Your task to perform on an android device: uninstall "WhatsApp Messenger" Image 0: 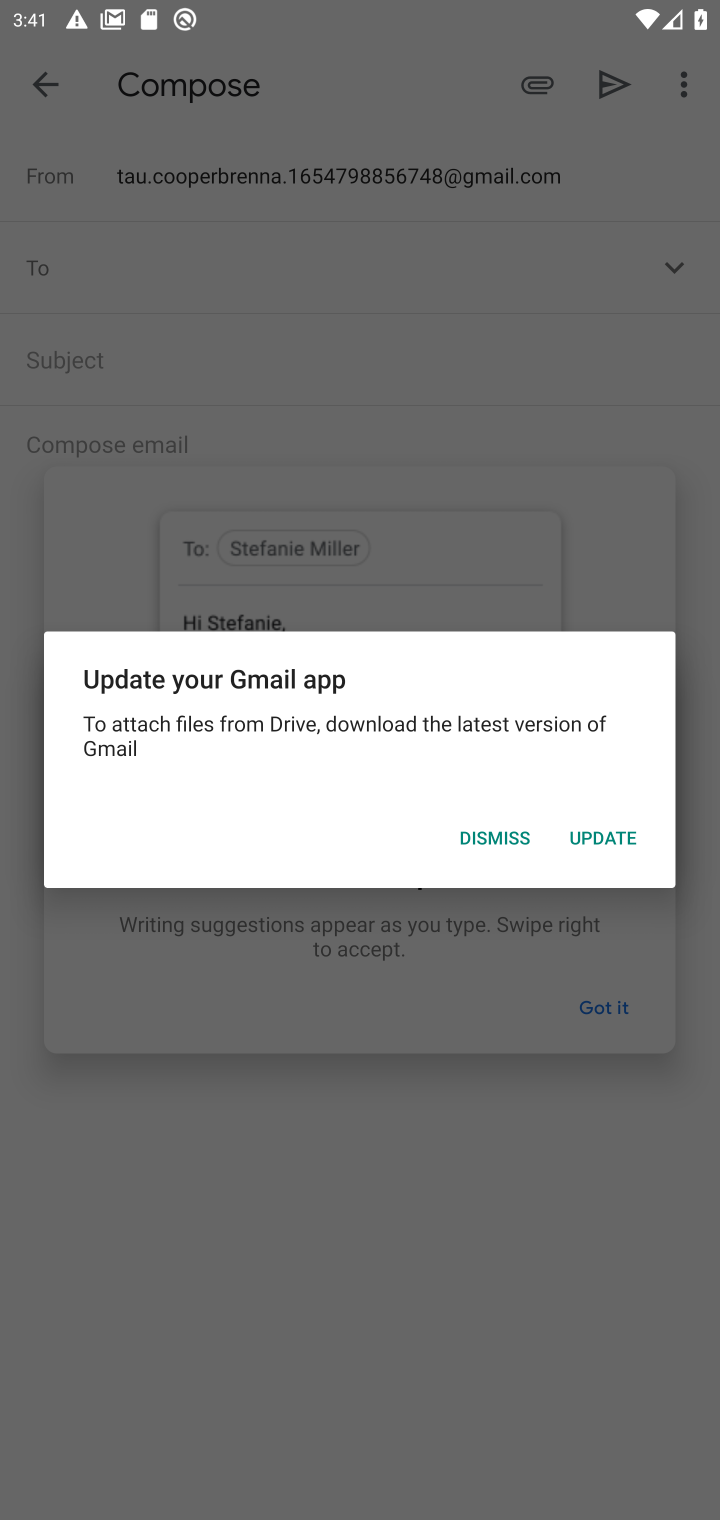
Step 0: press home button
Your task to perform on an android device: uninstall "WhatsApp Messenger" Image 1: 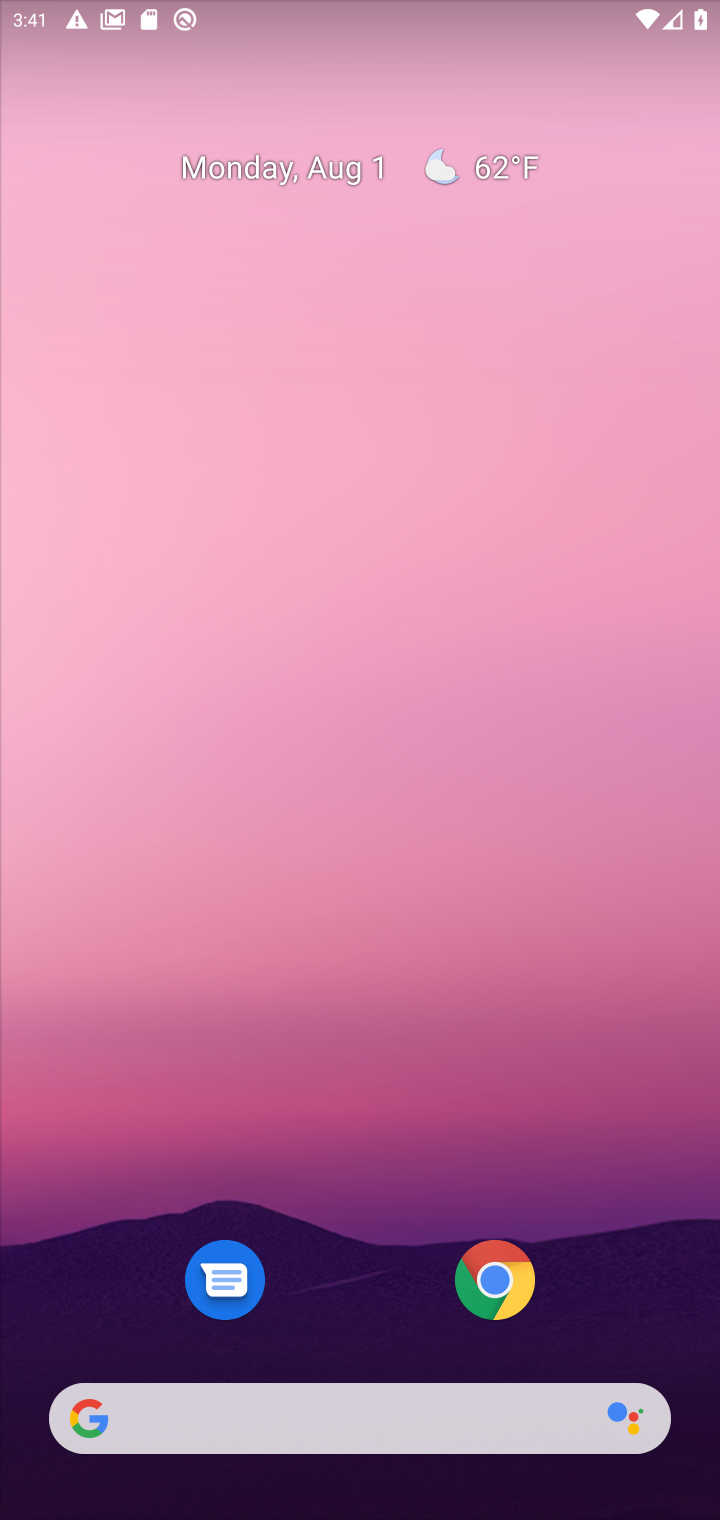
Step 1: drag from (310, 1274) to (395, 6)
Your task to perform on an android device: uninstall "WhatsApp Messenger" Image 2: 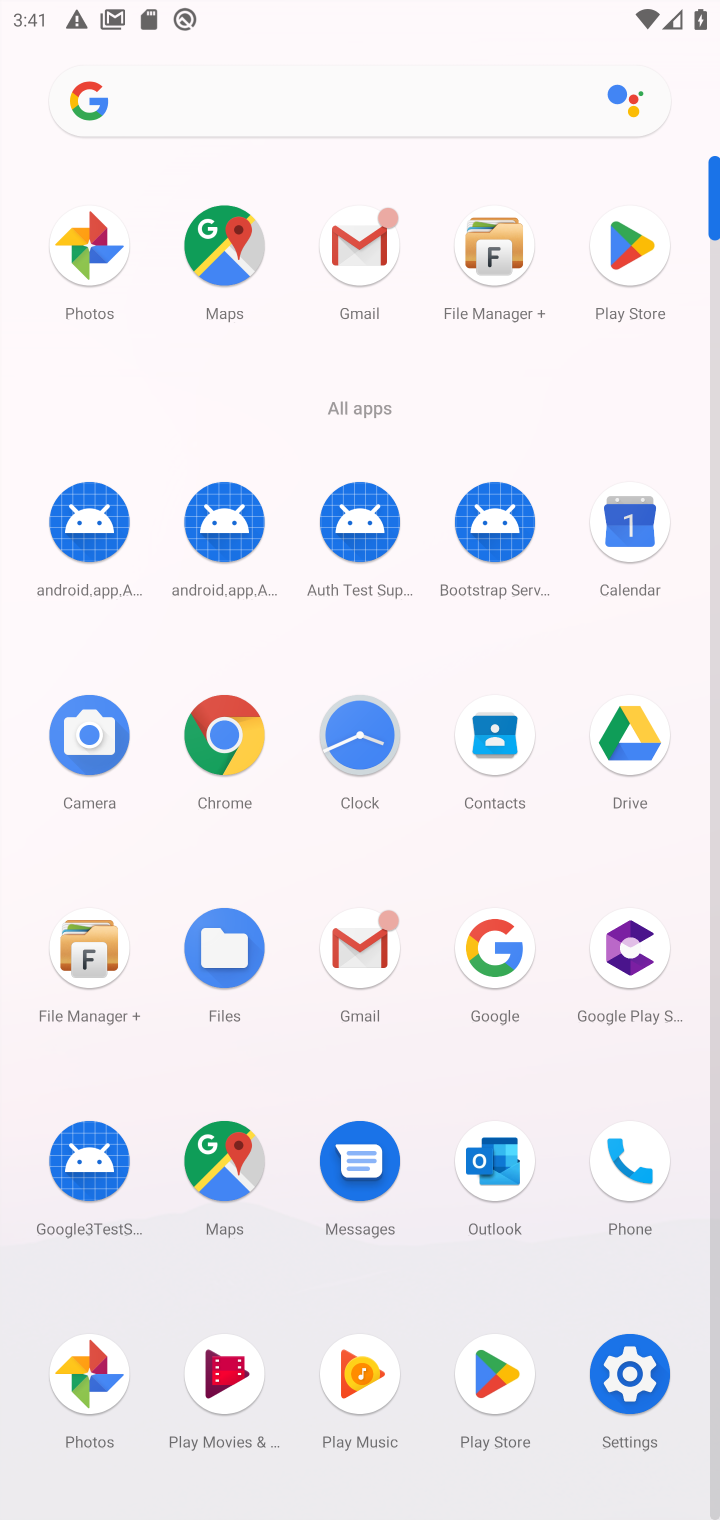
Step 2: click (624, 245)
Your task to perform on an android device: uninstall "WhatsApp Messenger" Image 3: 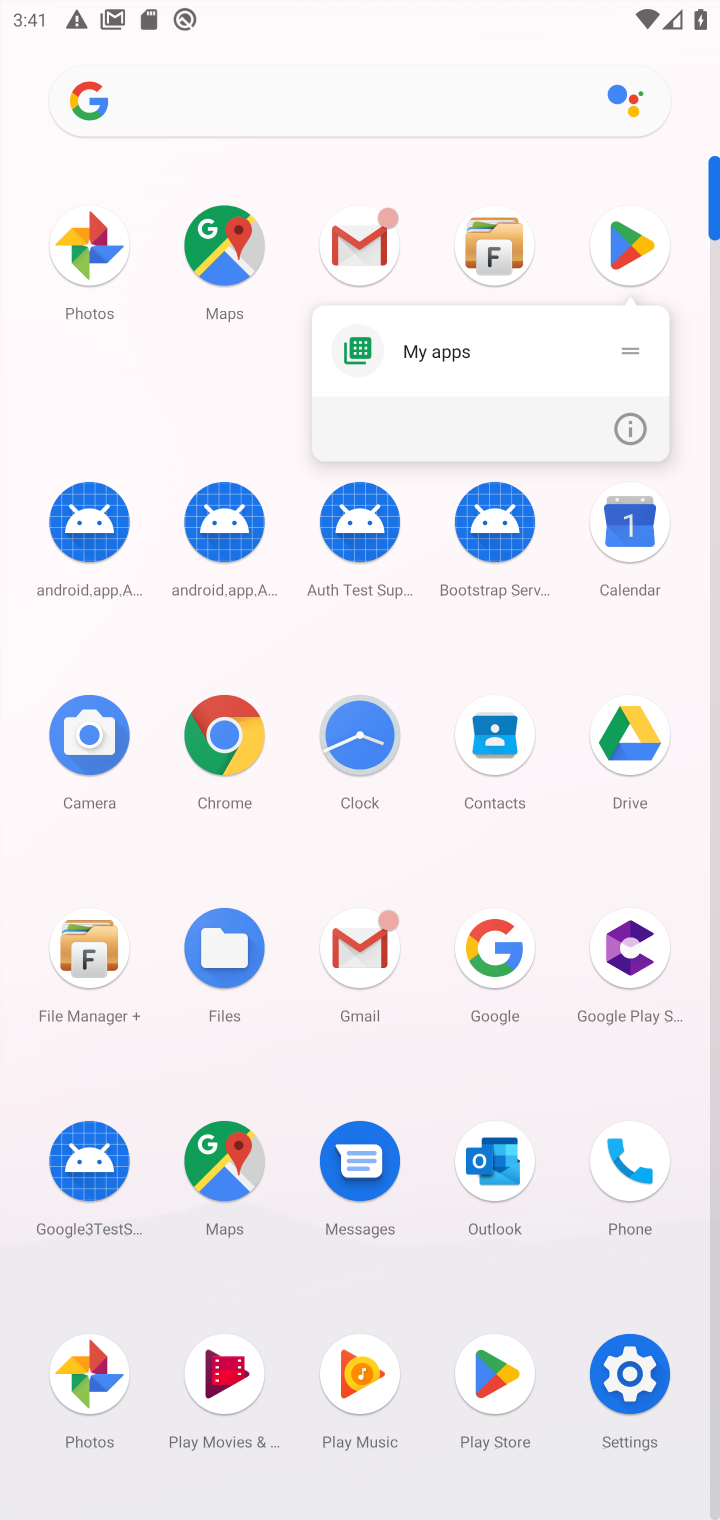
Step 3: click (622, 265)
Your task to perform on an android device: uninstall "WhatsApp Messenger" Image 4: 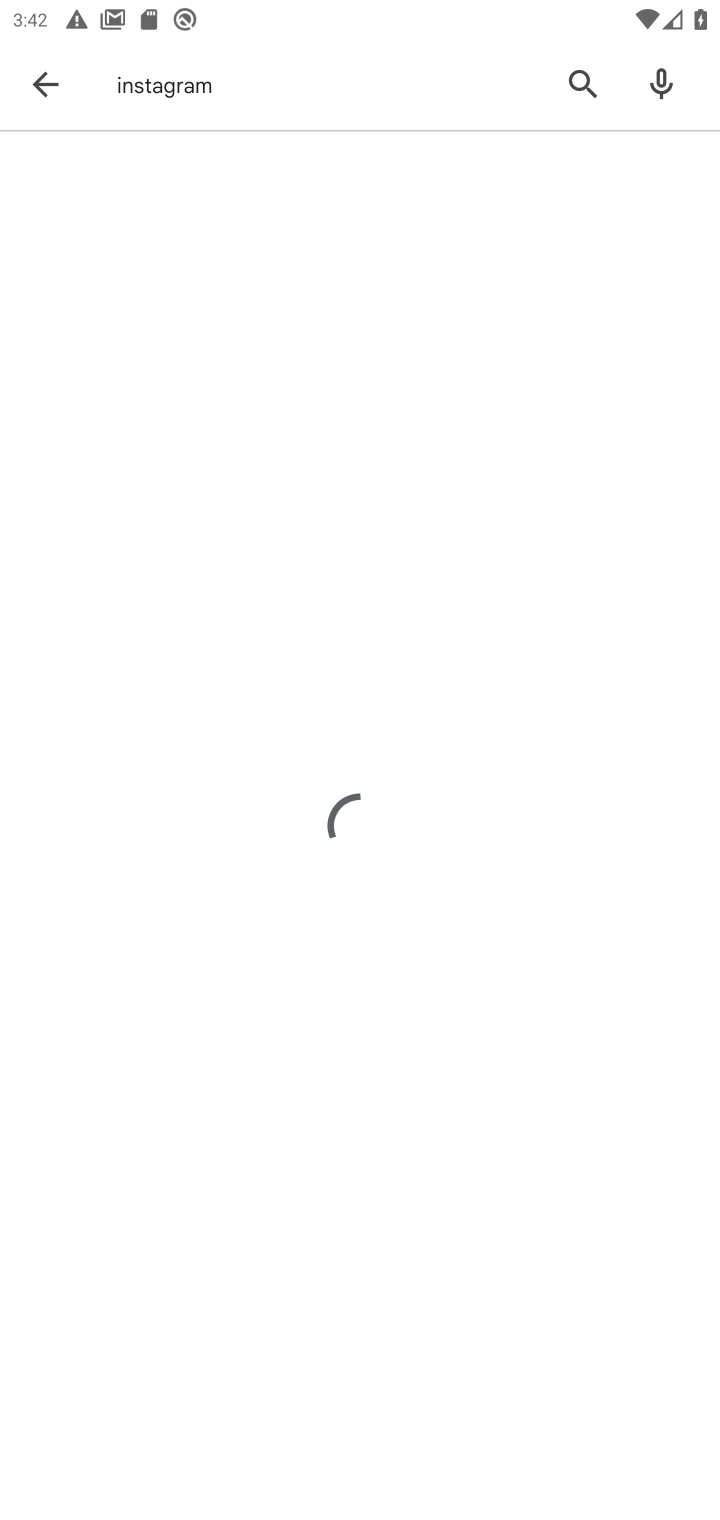
Step 4: click (582, 72)
Your task to perform on an android device: uninstall "WhatsApp Messenger" Image 5: 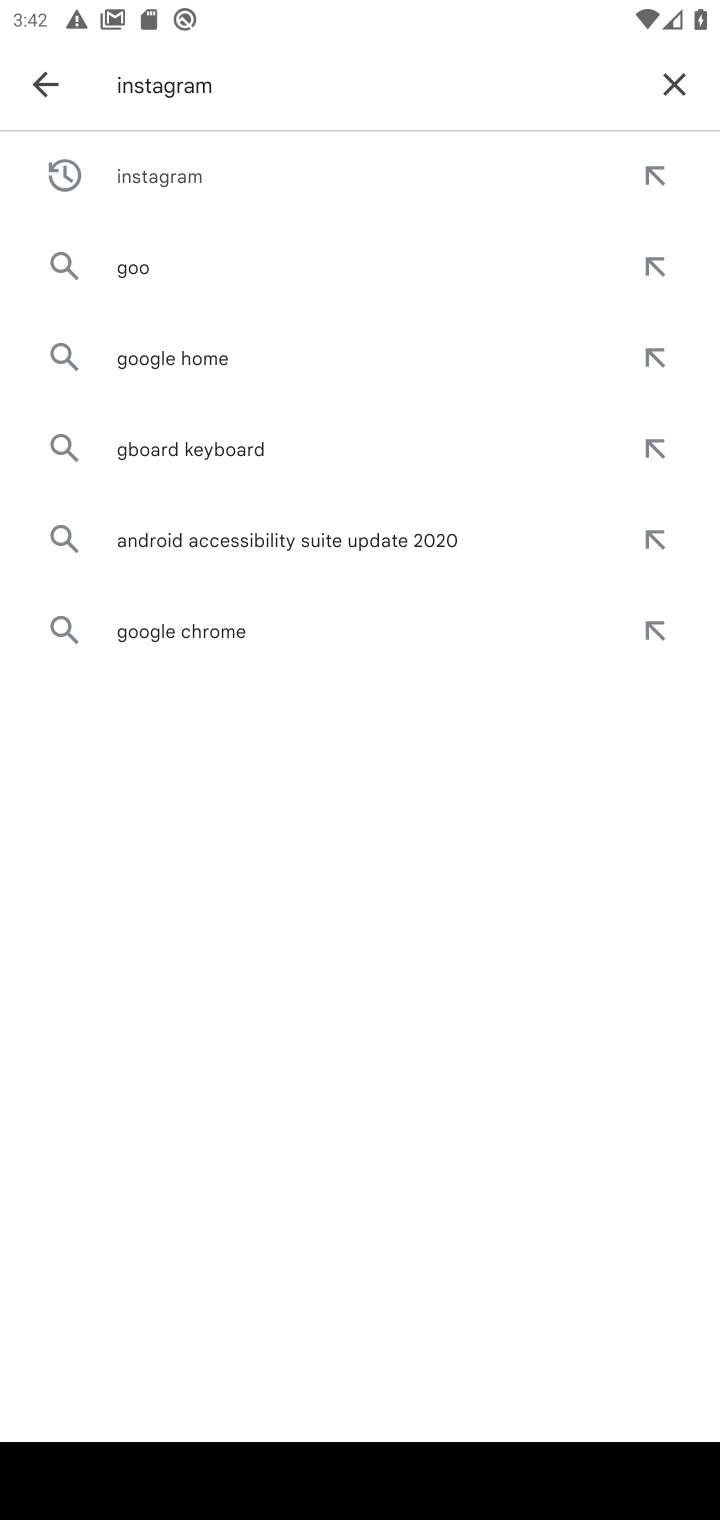
Step 5: click (676, 93)
Your task to perform on an android device: uninstall "WhatsApp Messenger" Image 6: 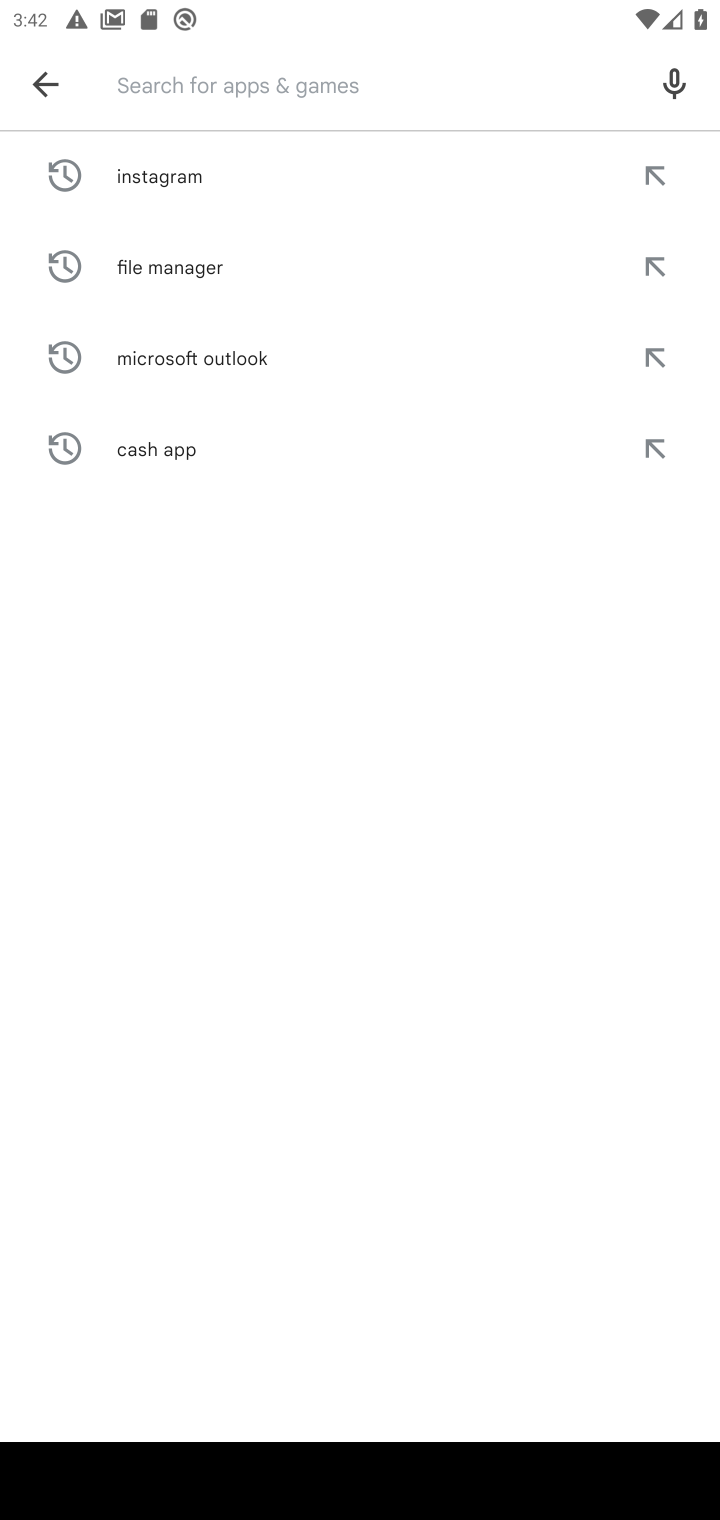
Step 6: type "WhatsApp Messenger"
Your task to perform on an android device: uninstall "WhatsApp Messenger" Image 7: 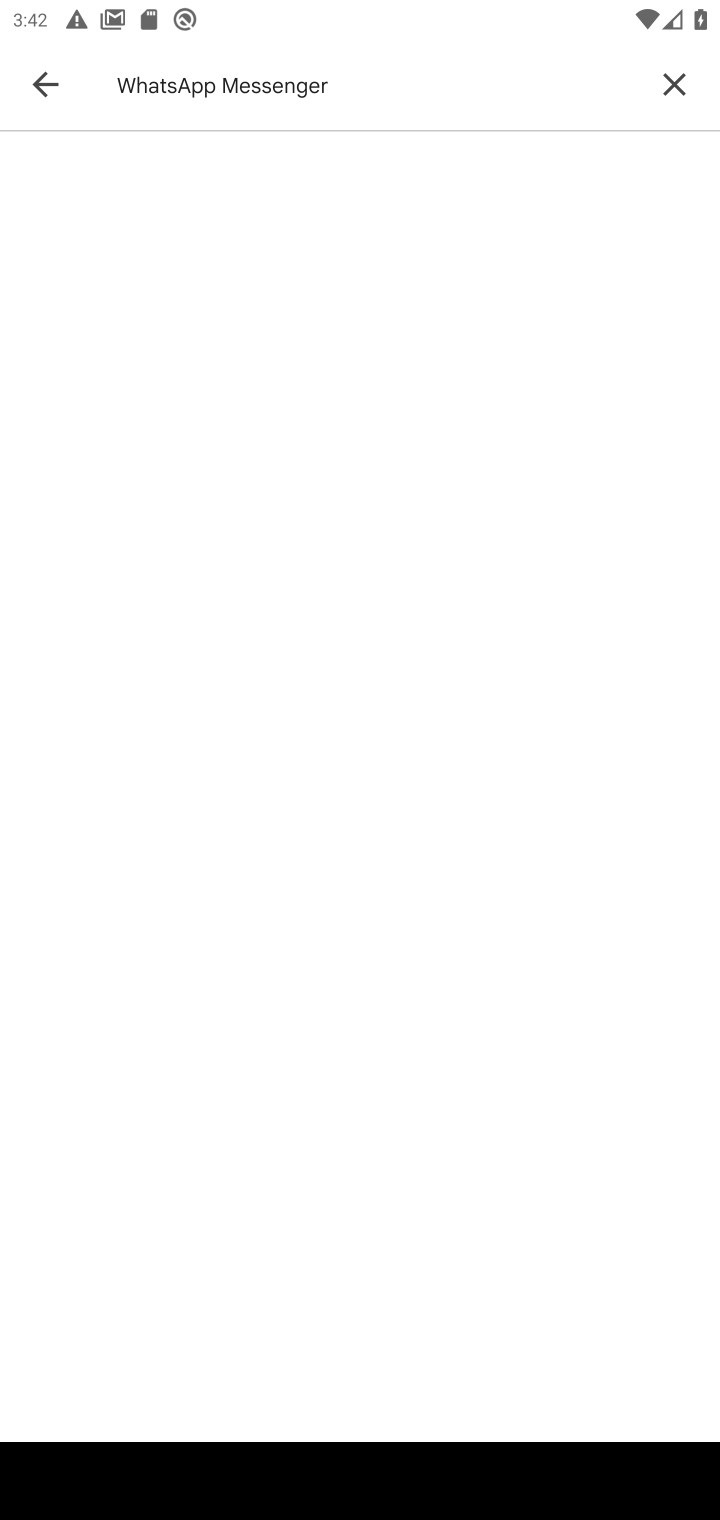
Step 7: click (350, 98)
Your task to perform on an android device: uninstall "WhatsApp Messenger" Image 8: 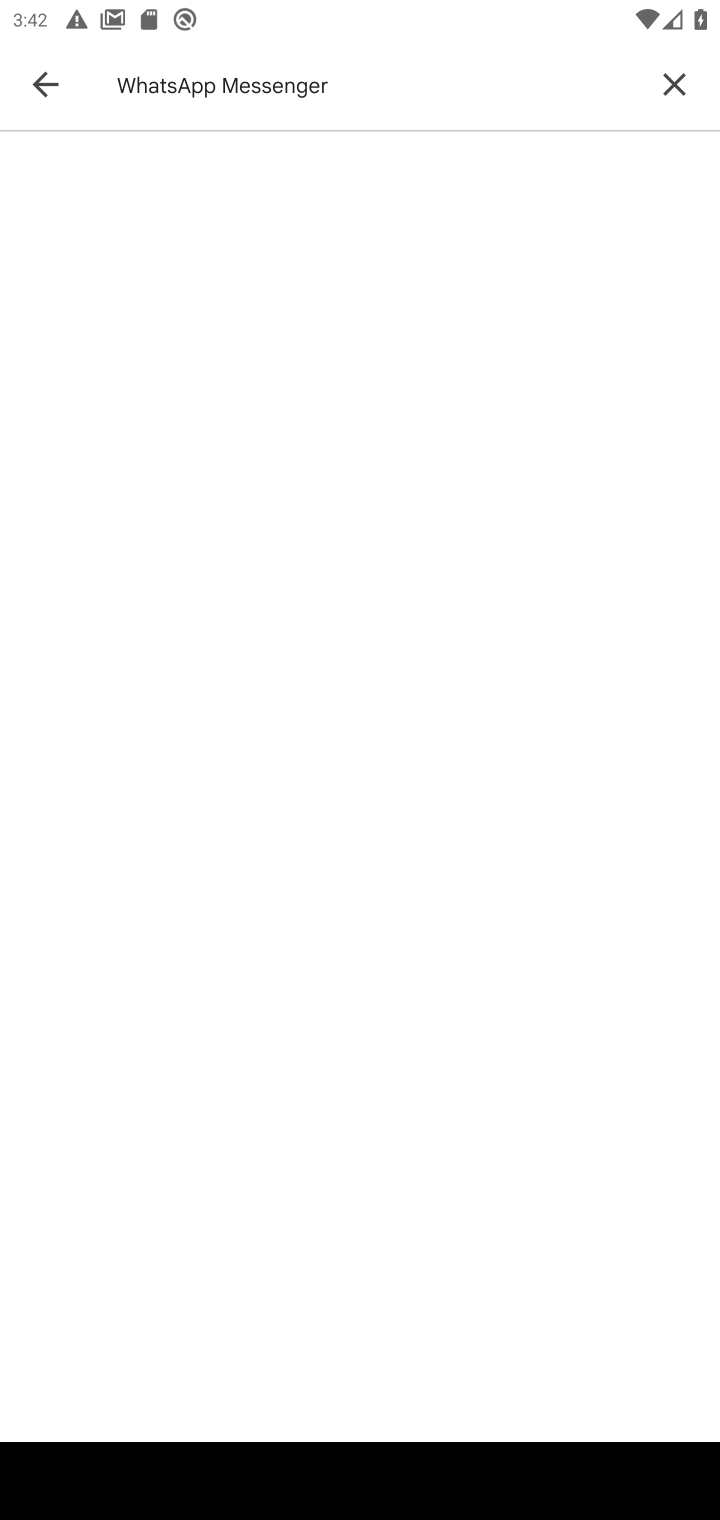
Step 8: click (672, 91)
Your task to perform on an android device: uninstall "WhatsApp Messenger" Image 9: 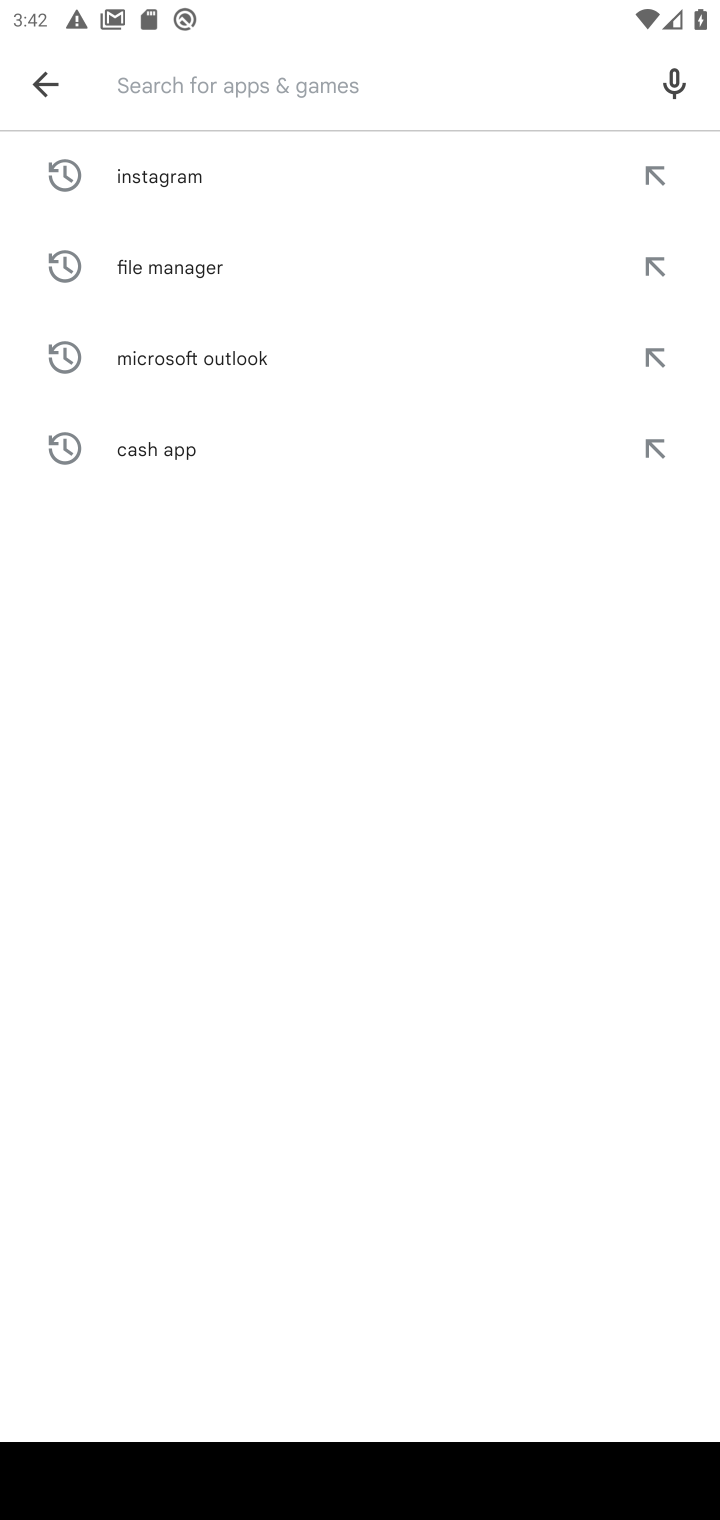
Step 9: click (280, 91)
Your task to perform on an android device: uninstall "WhatsApp Messenger" Image 10: 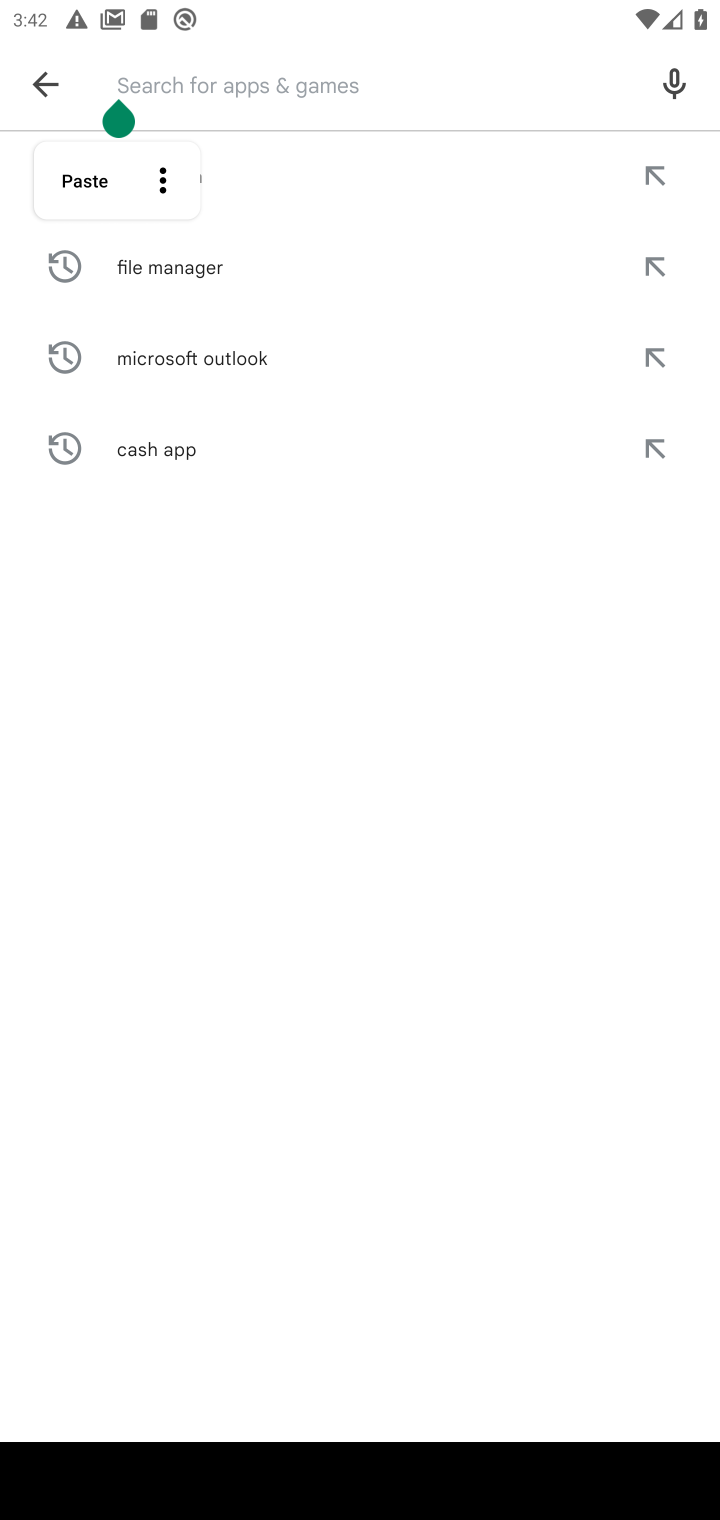
Step 10: type "WhatsApp Messenger"
Your task to perform on an android device: uninstall "WhatsApp Messenger" Image 11: 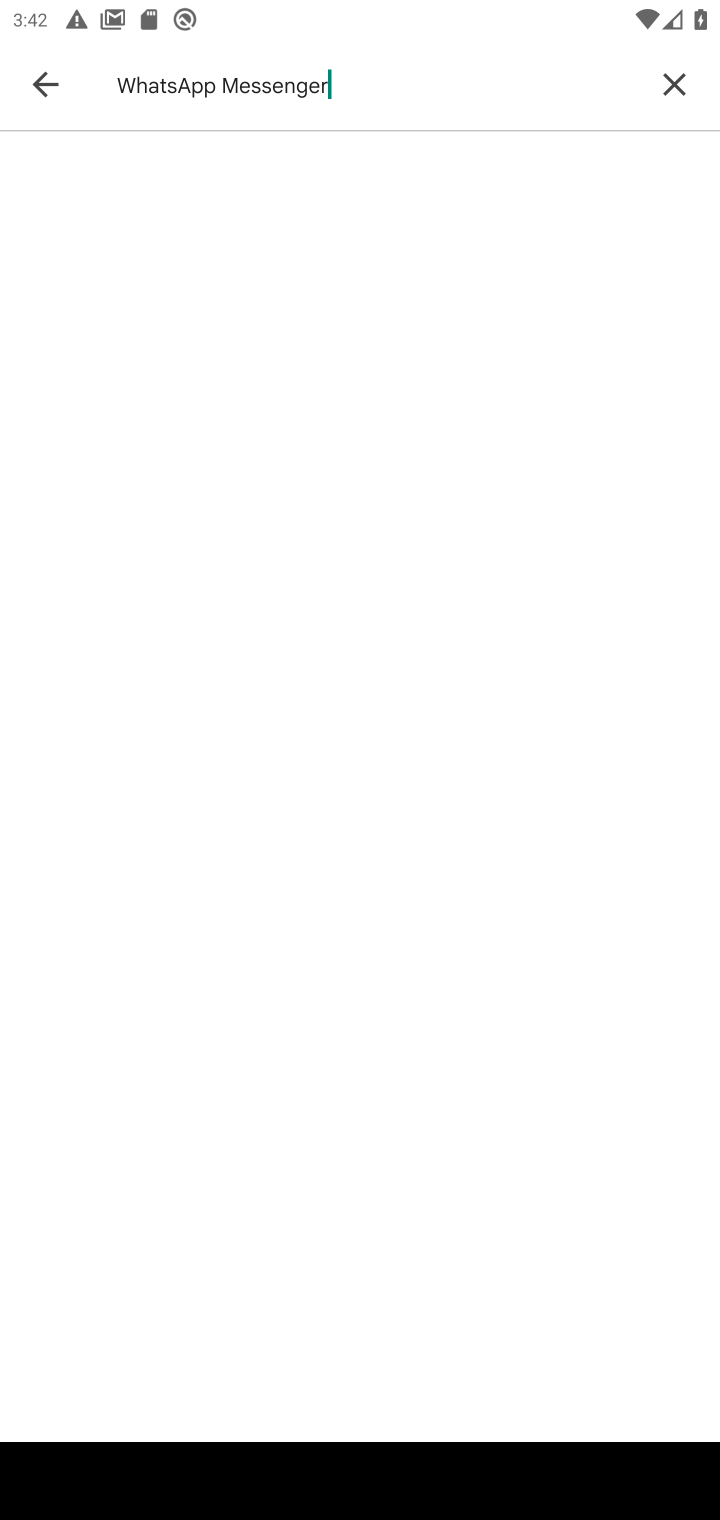
Step 11: task complete